Your task to perform on an android device: Open Chrome and go to the settings page Image 0: 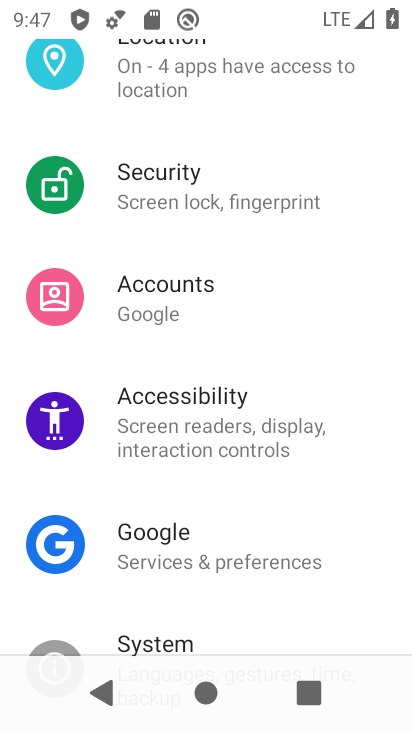
Step 0: press home button
Your task to perform on an android device: Open Chrome and go to the settings page Image 1: 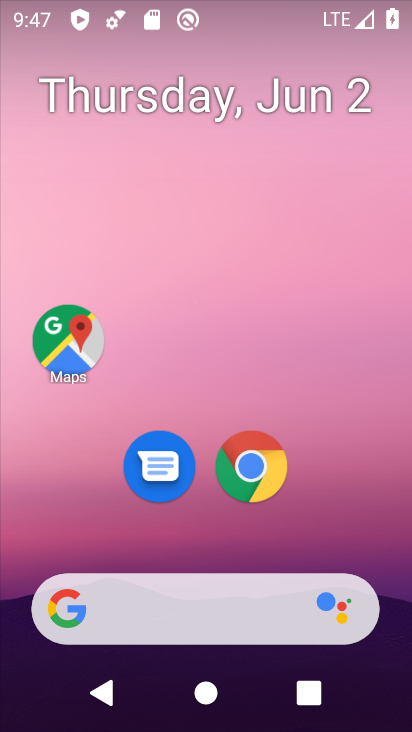
Step 1: click (275, 470)
Your task to perform on an android device: Open Chrome and go to the settings page Image 2: 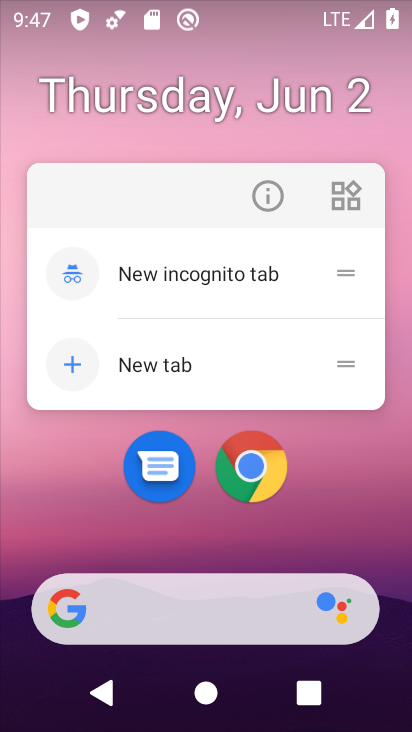
Step 2: click (253, 484)
Your task to perform on an android device: Open Chrome and go to the settings page Image 3: 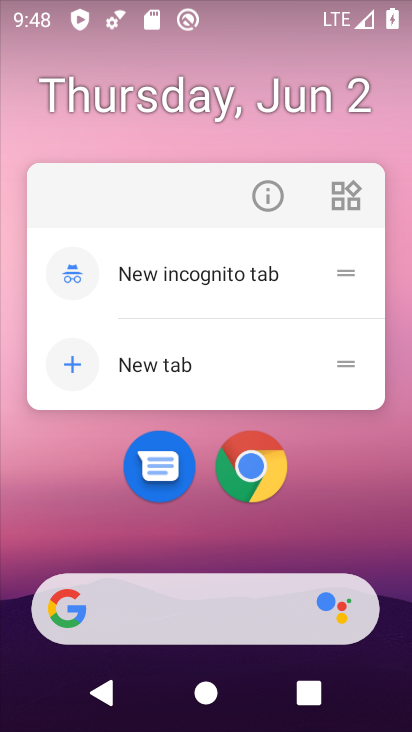
Step 3: click (253, 485)
Your task to perform on an android device: Open Chrome and go to the settings page Image 4: 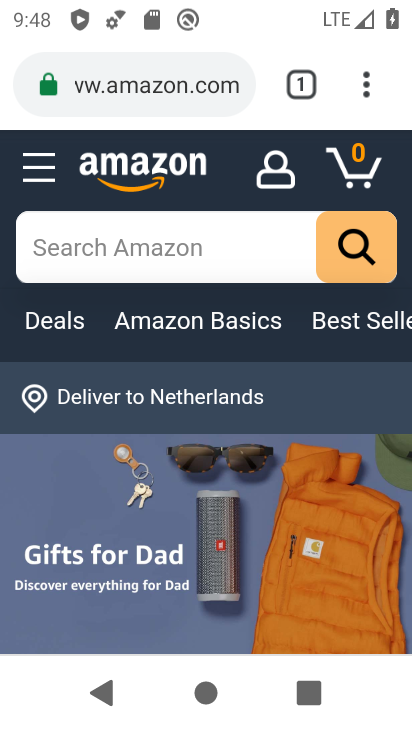
Step 4: task complete